Your task to perform on an android device: turn on the 24-hour format for clock Image 0: 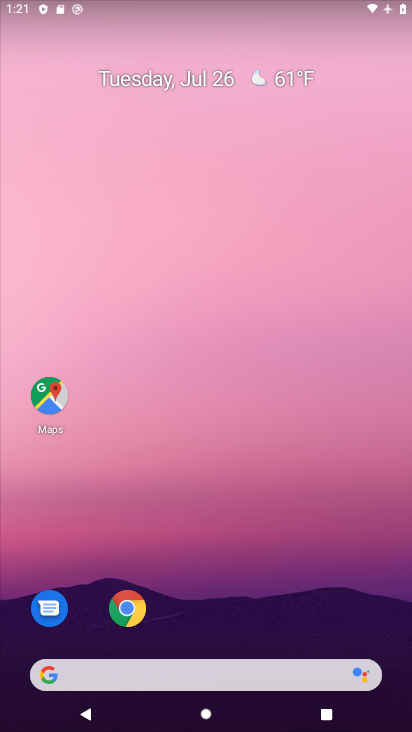
Step 0: drag from (195, 594) to (179, 225)
Your task to perform on an android device: turn on the 24-hour format for clock Image 1: 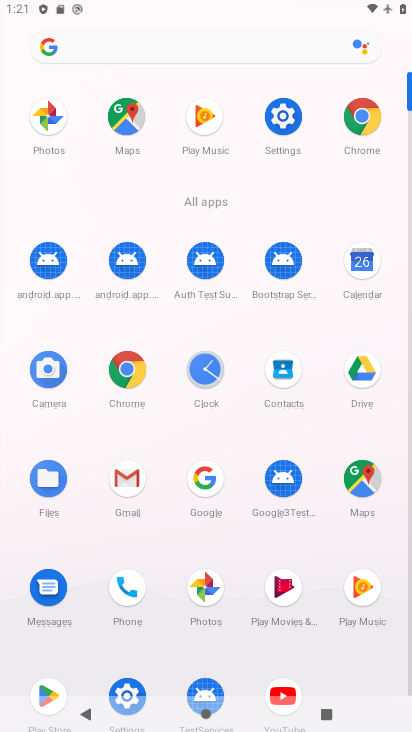
Step 1: click (208, 376)
Your task to perform on an android device: turn on the 24-hour format for clock Image 2: 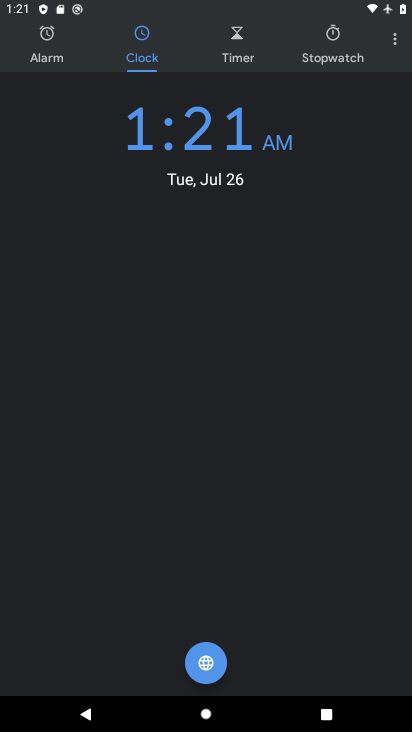
Step 2: click (396, 43)
Your task to perform on an android device: turn on the 24-hour format for clock Image 3: 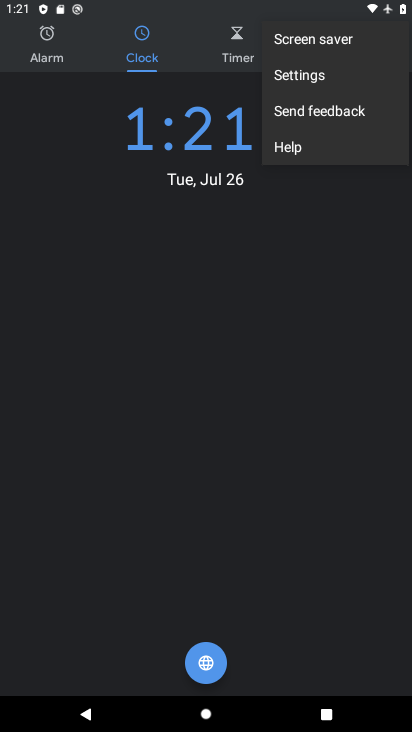
Step 3: click (324, 74)
Your task to perform on an android device: turn on the 24-hour format for clock Image 4: 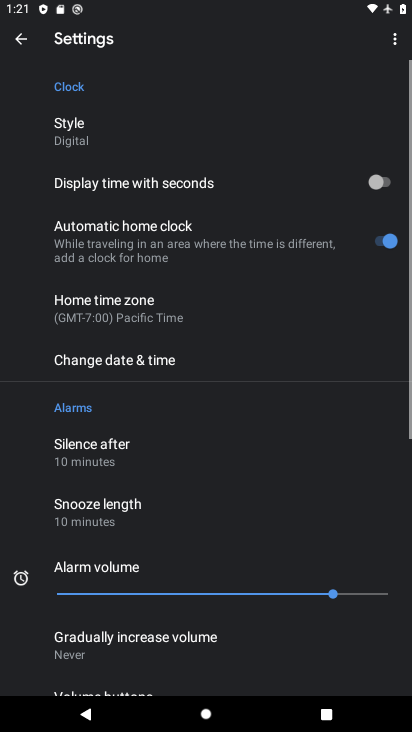
Step 4: click (170, 372)
Your task to perform on an android device: turn on the 24-hour format for clock Image 5: 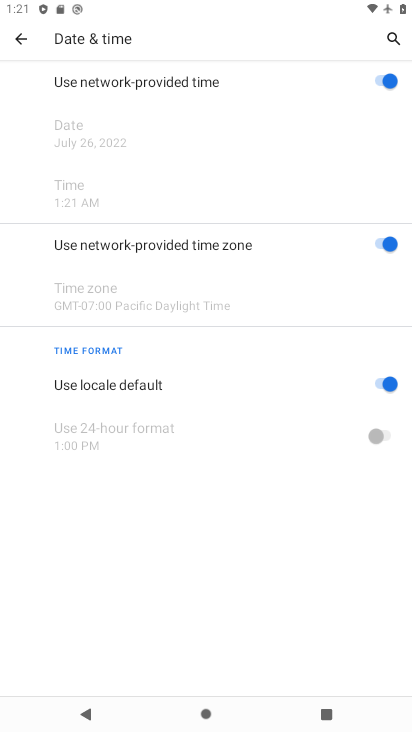
Step 5: click (394, 385)
Your task to perform on an android device: turn on the 24-hour format for clock Image 6: 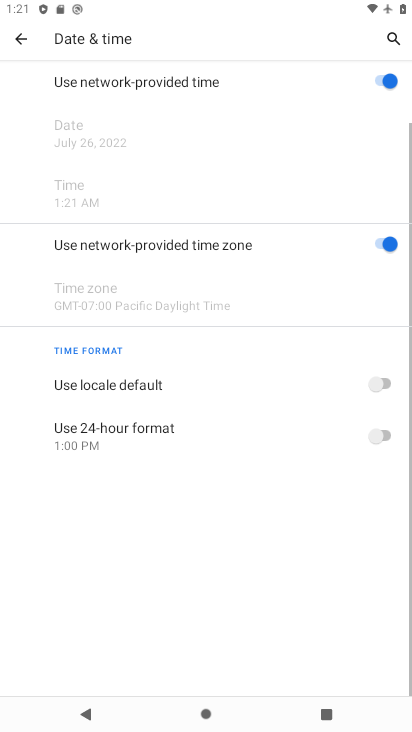
Step 6: click (376, 441)
Your task to perform on an android device: turn on the 24-hour format for clock Image 7: 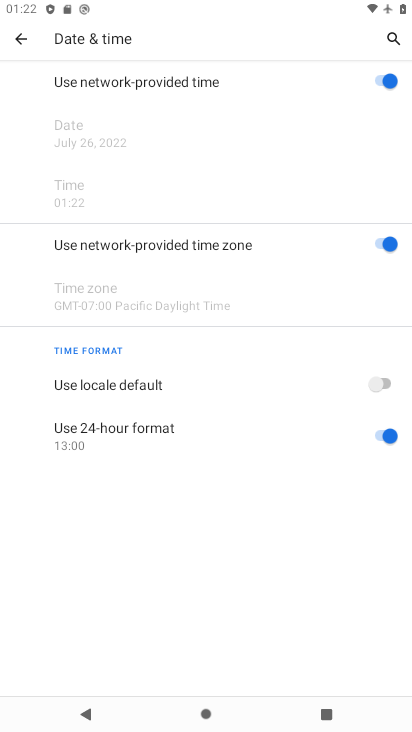
Step 7: task complete